Your task to perform on an android device: see creations saved in the google photos Image 0: 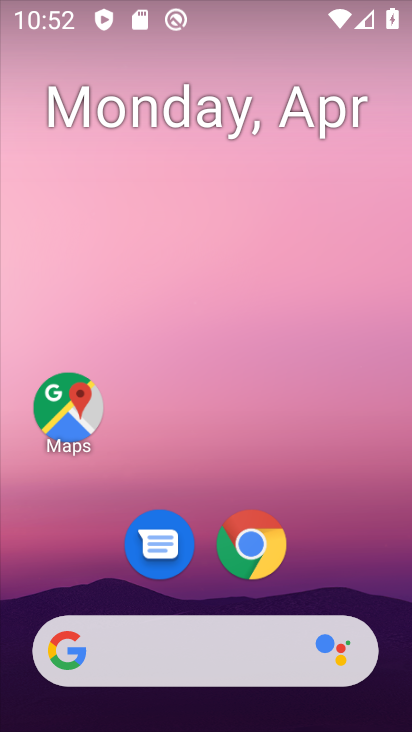
Step 0: drag from (366, 371) to (337, 35)
Your task to perform on an android device: see creations saved in the google photos Image 1: 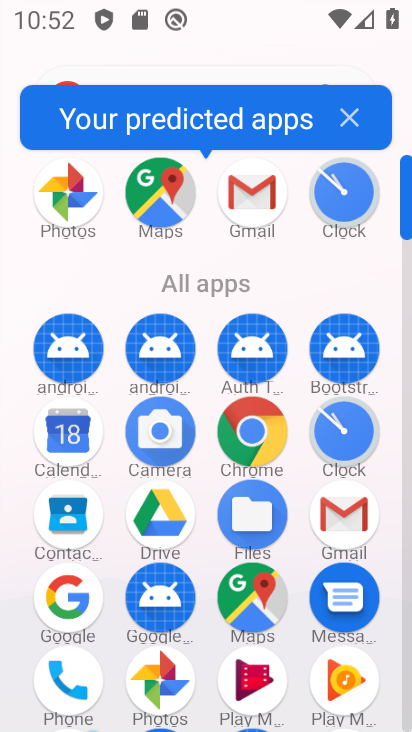
Step 1: click (52, 193)
Your task to perform on an android device: see creations saved in the google photos Image 2: 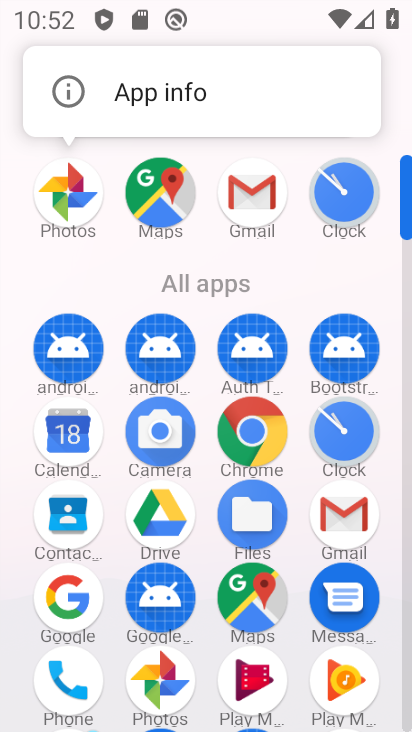
Step 2: click (52, 193)
Your task to perform on an android device: see creations saved in the google photos Image 3: 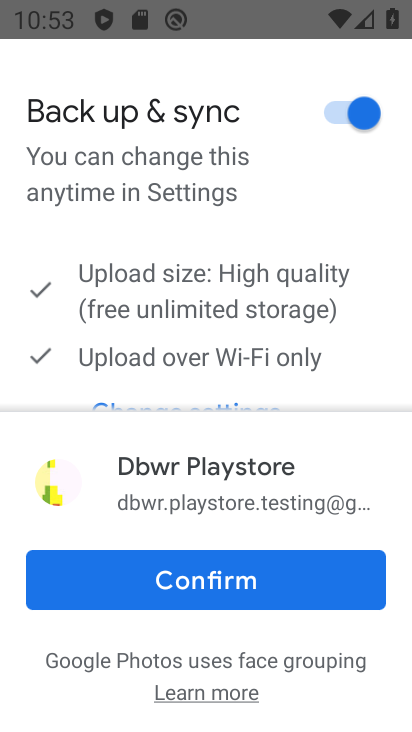
Step 3: click (233, 582)
Your task to perform on an android device: see creations saved in the google photos Image 4: 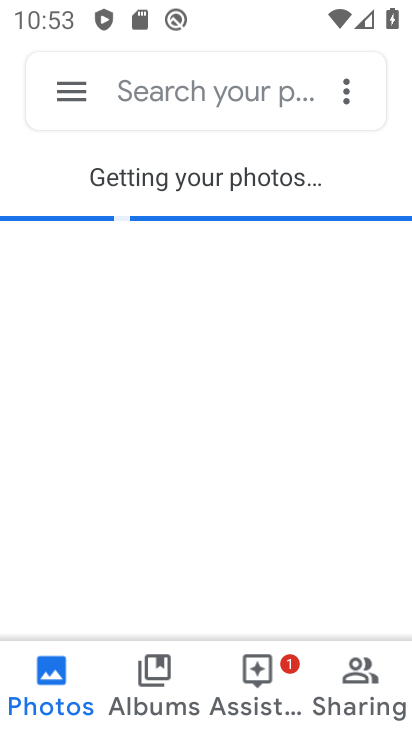
Step 4: click (132, 97)
Your task to perform on an android device: see creations saved in the google photos Image 5: 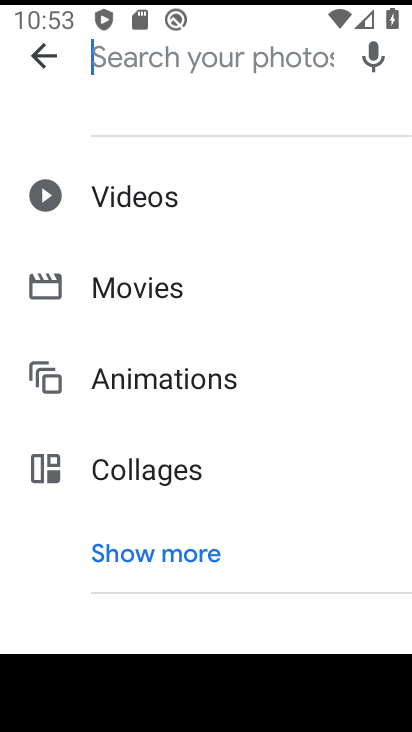
Step 5: click (164, 554)
Your task to perform on an android device: see creations saved in the google photos Image 6: 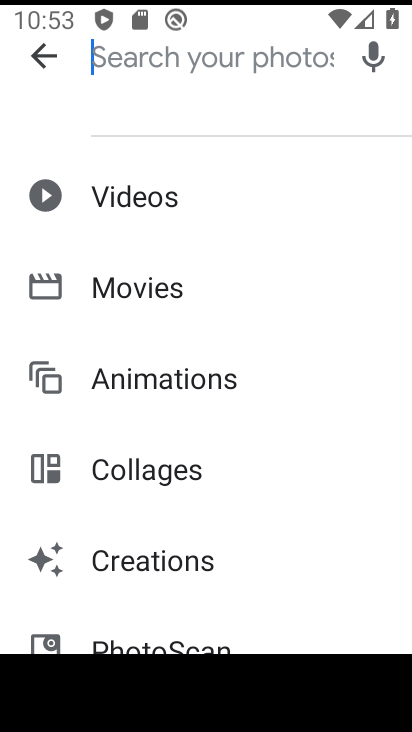
Step 6: click (154, 560)
Your task to perform on an android device: see creations saved in the google photos Image 7: 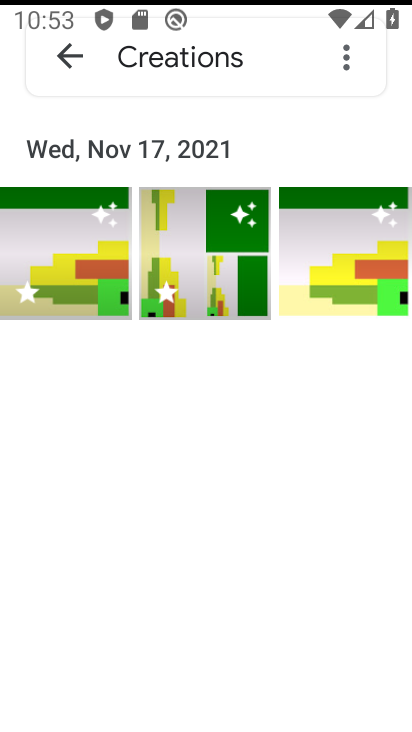
Step 7: task complete